Your task to perform on an android device: turn on the 24-hour format for clock Image 0: 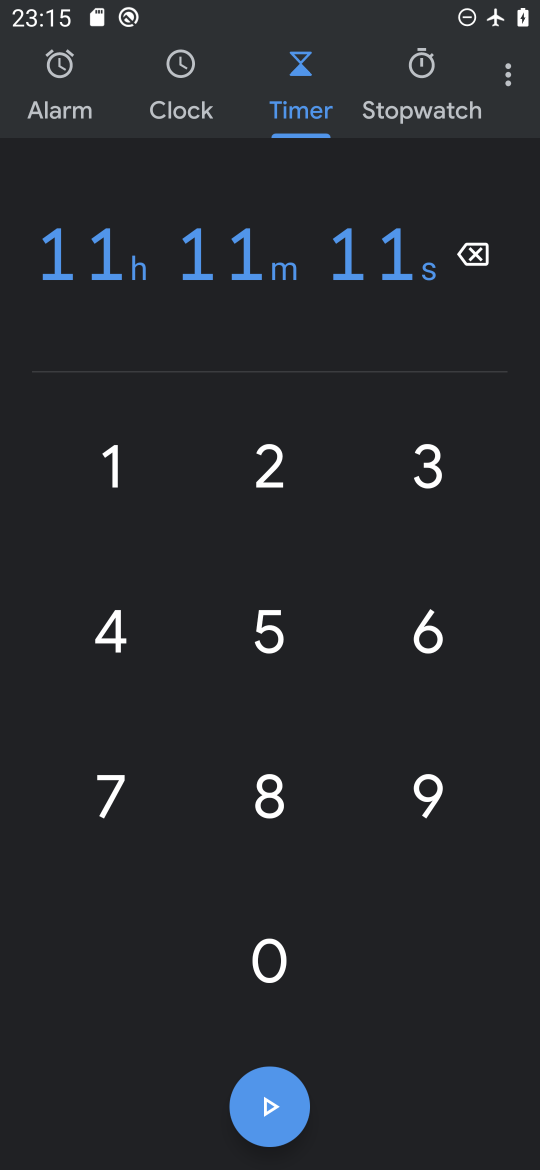
Step 0: press home button
Your task to perform on an android device: turn on the 24-hour format for clock Image 1: 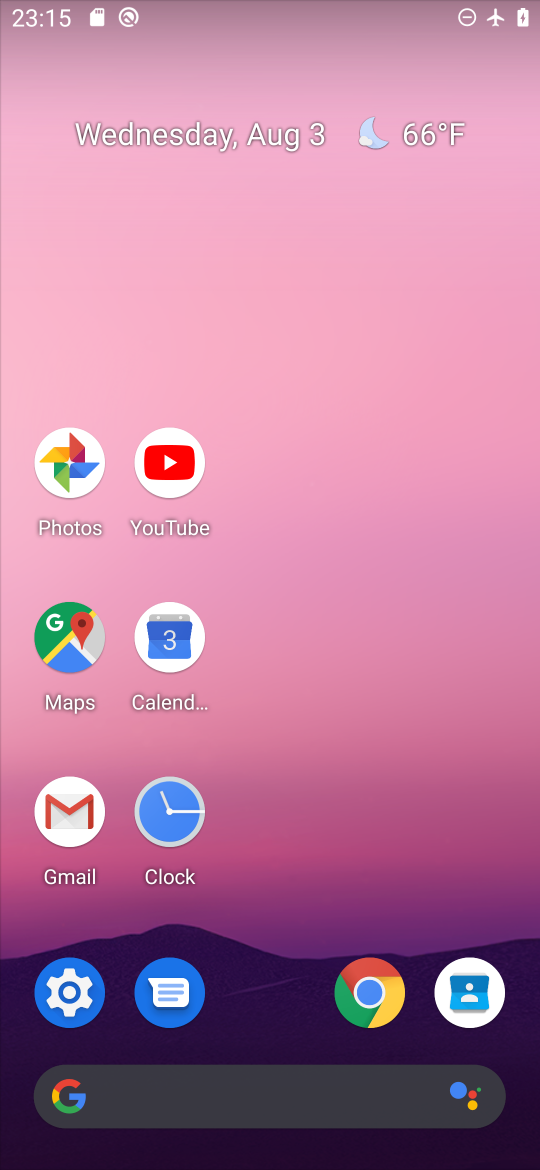
Step 1: click (170, 812)
Your task to perform on an android device: turn on the 24-hour format for clock Image 2: 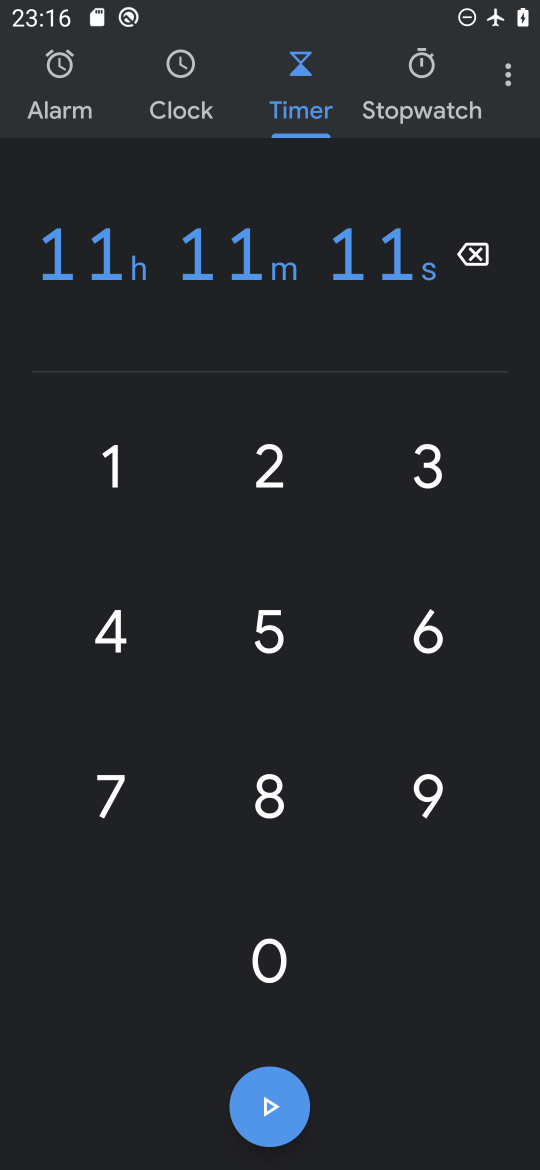
Step 2: click (504, 64)
Your task to perform on an android device: turn on the 24-hour format for clock Image 3: 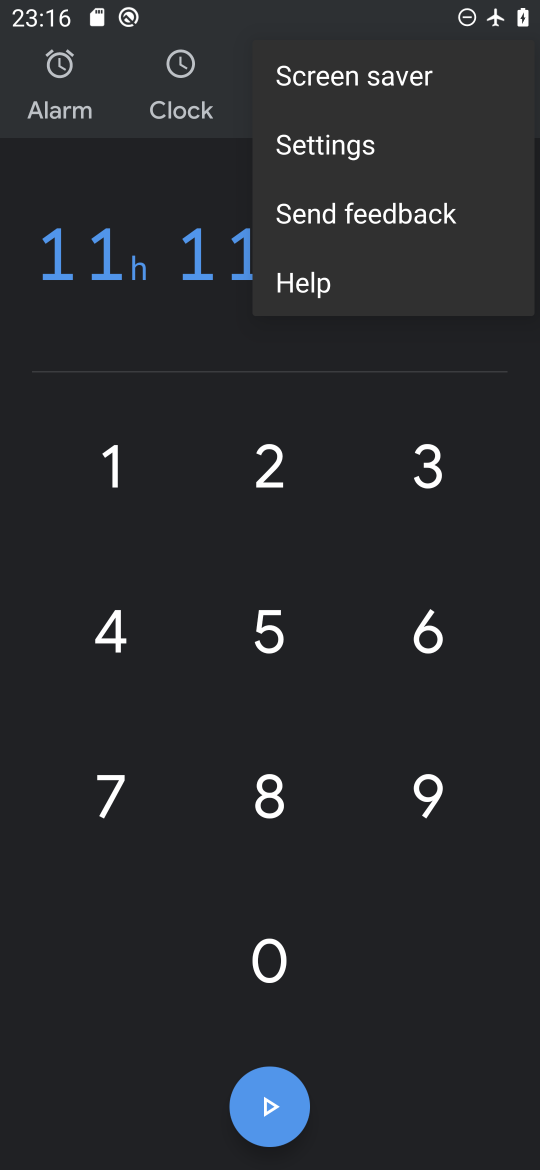
Step 3: click (365, 142)
Your task to perform on an android device: turn on the 24-hour format for clock Image 4: 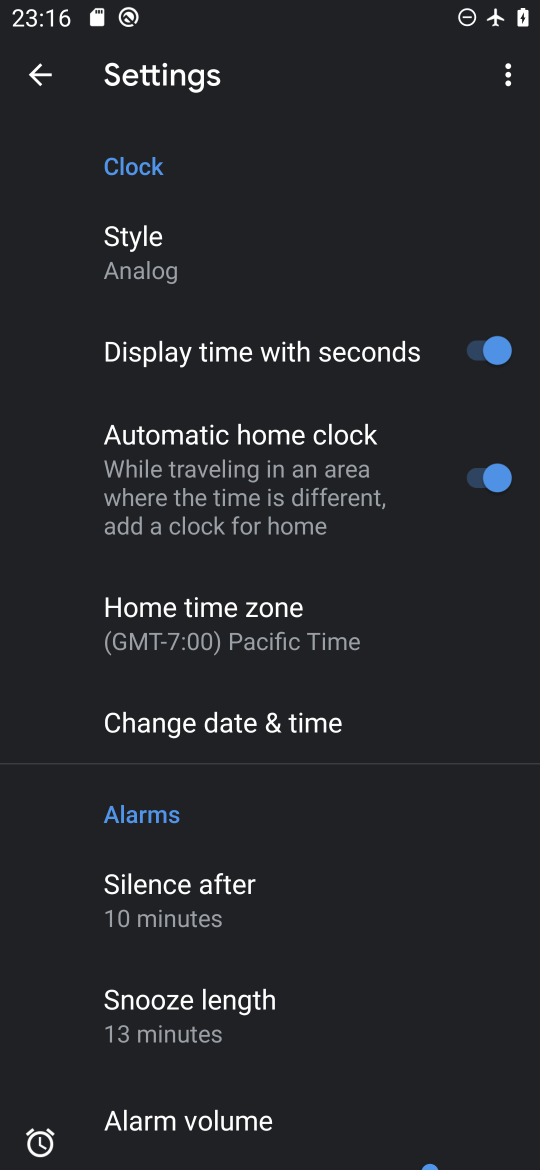
Step 4: click (265, 716)
Your task to perform on an android device: turn on the 24-hour format for clock Image 5: 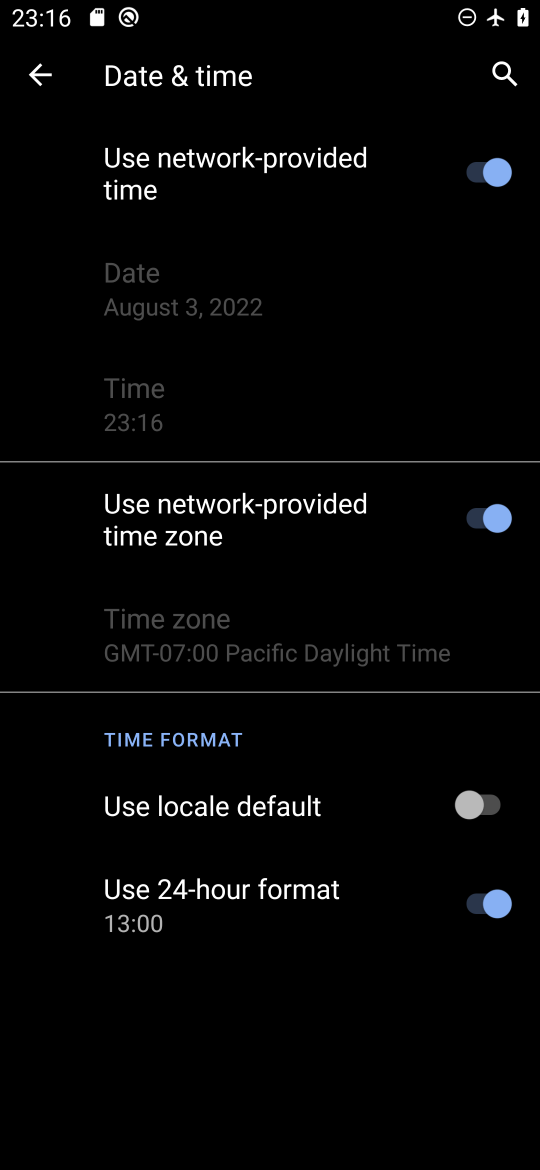
Step 5: task complete